Your task to perform on an android device: turn off sleep mode Image 0: 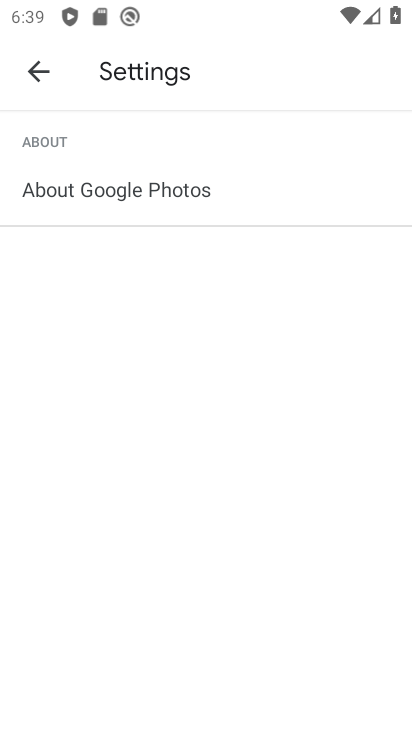
Step 0: press home button
Your task to perform on an android device: turn off sleep mode Image 1: 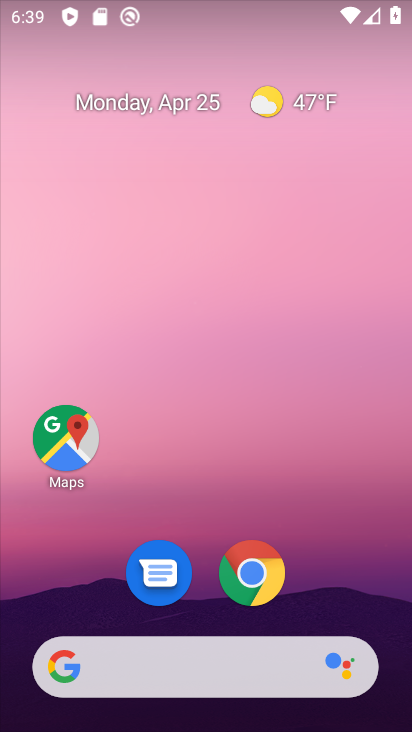
Step 1: drag from (335, 594) to (224, 16)
Your task to perform on an android device: turn off sleep mode Image 2: 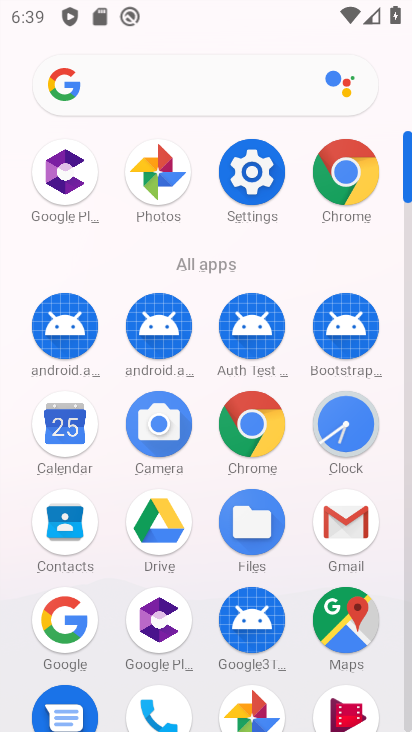
Step 2: click (253, 180)
Your task to perform on an android device: turn off sleep mode Image 3: 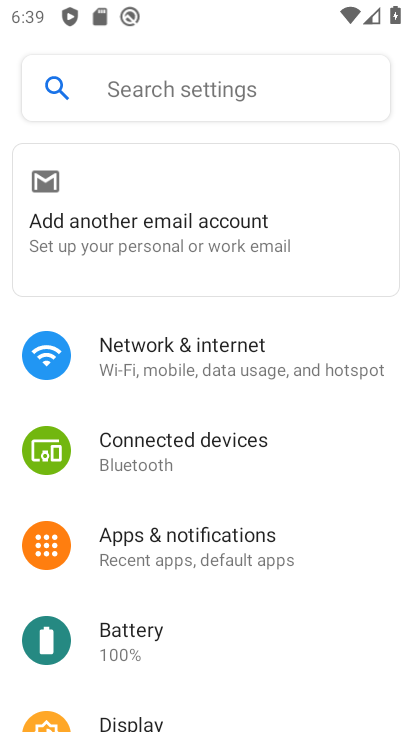
Step 3: click (196, 721)
Your task to perform on an android device: turn off sleep mode Image 4: 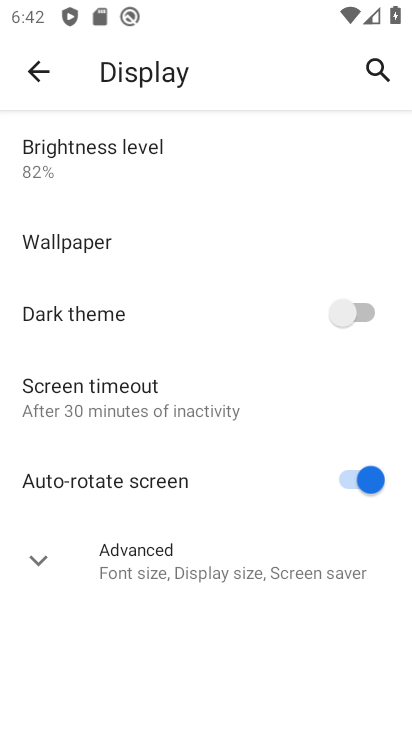
Step 4: task complete